Your task to perform on an android device: star an email in the gmail app Image 0: 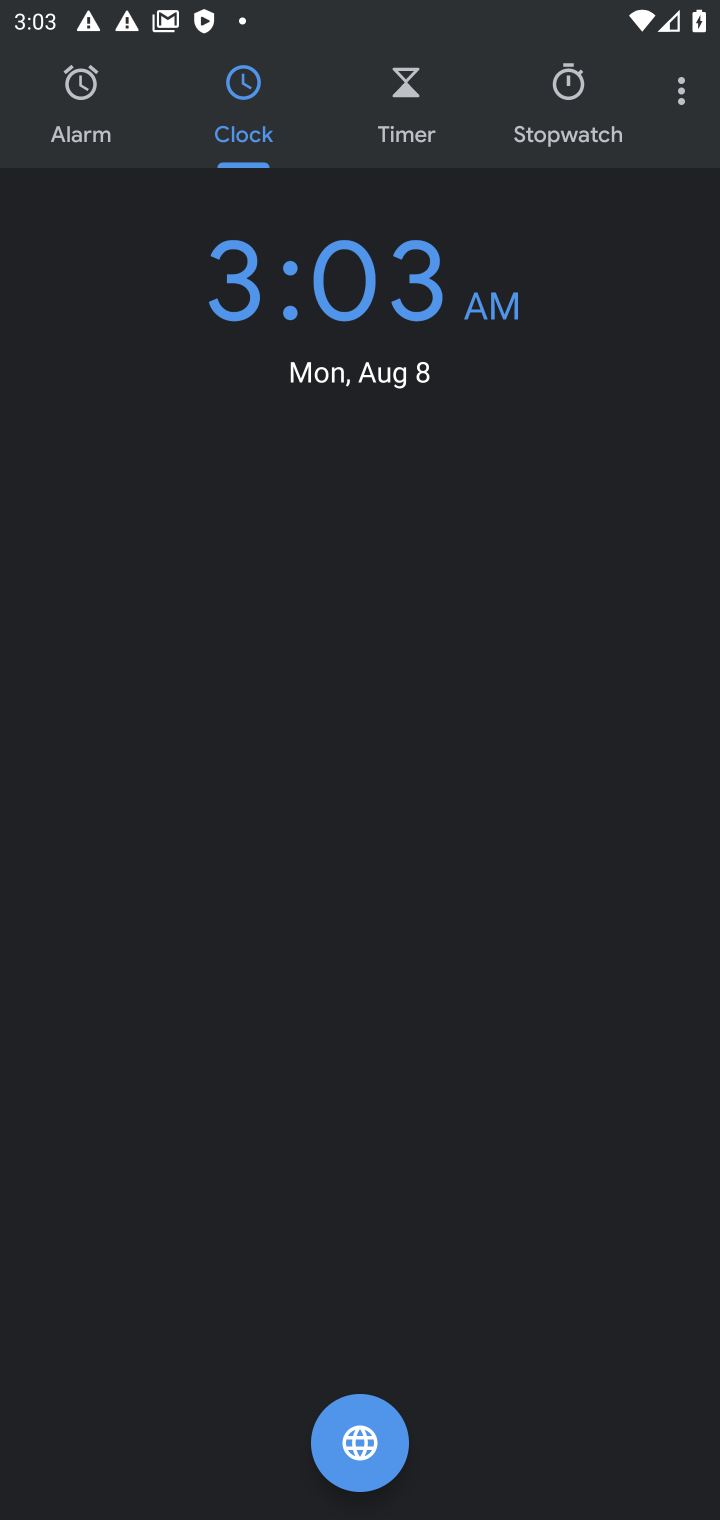
Step 0: press back button
Your task to perform on an android device: star an email in the gmail app Image 1: 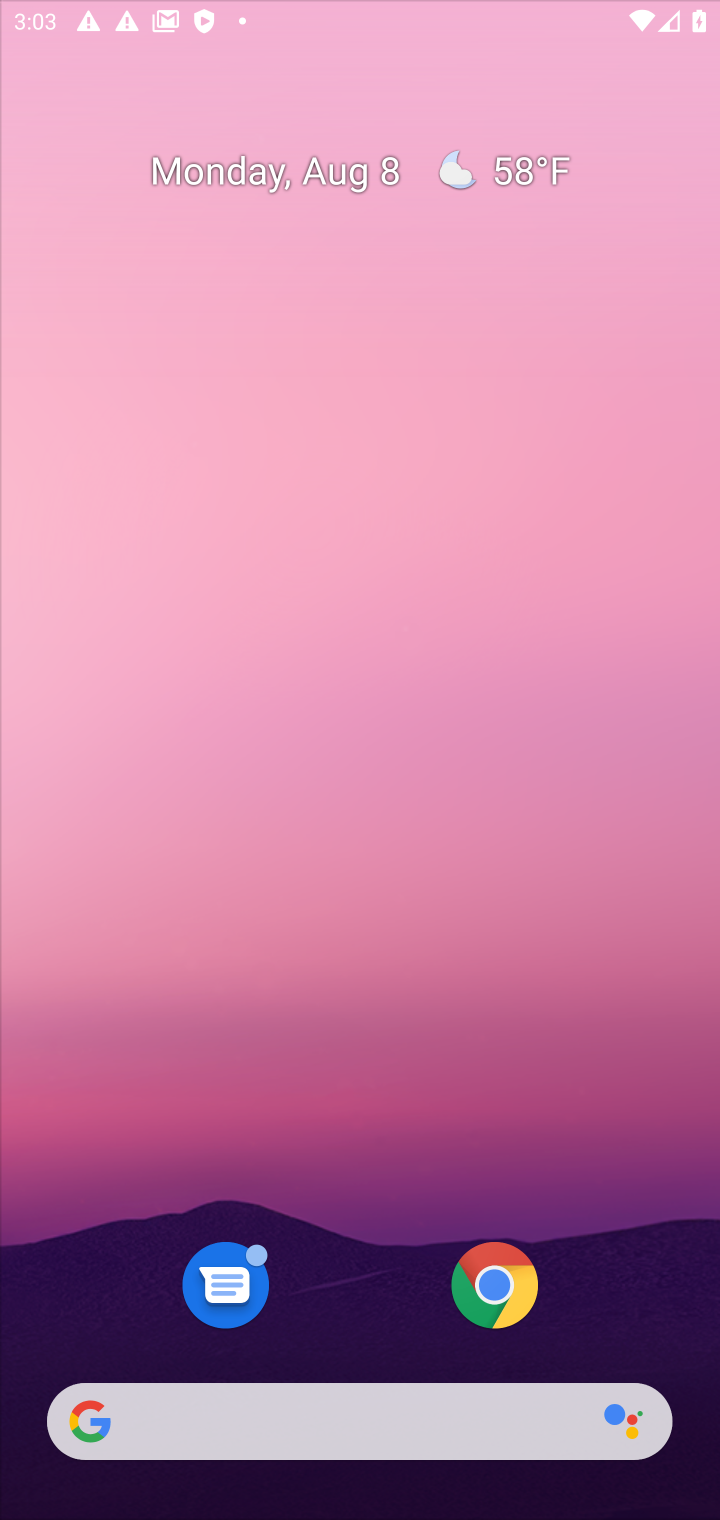
Step 1: drag from (310, 1319) to (579, 200)
Your task to perform on an android device: star an email in the gmail app Image 2: 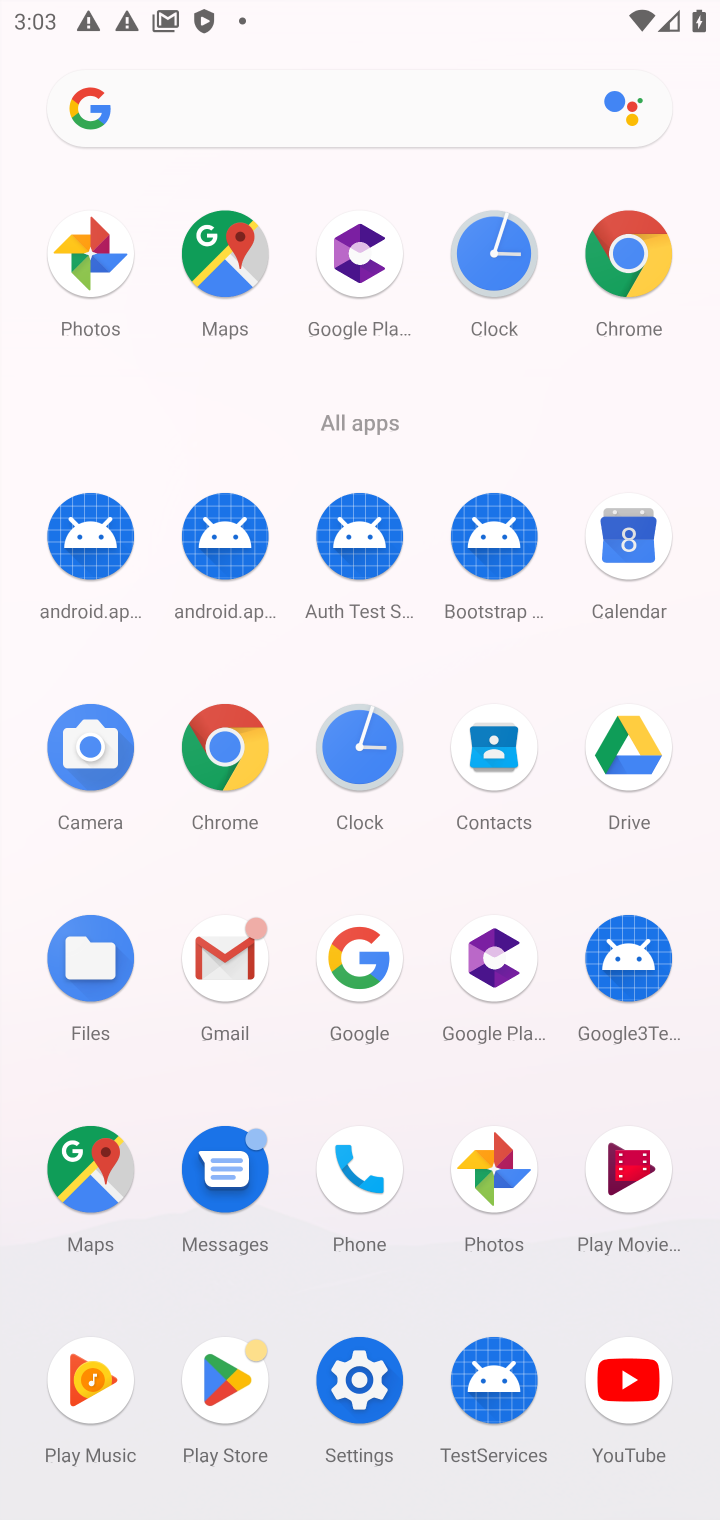
Step 2: click (235, 964)
Your task to perform on an android device: star an email in the gmail app Image 3: 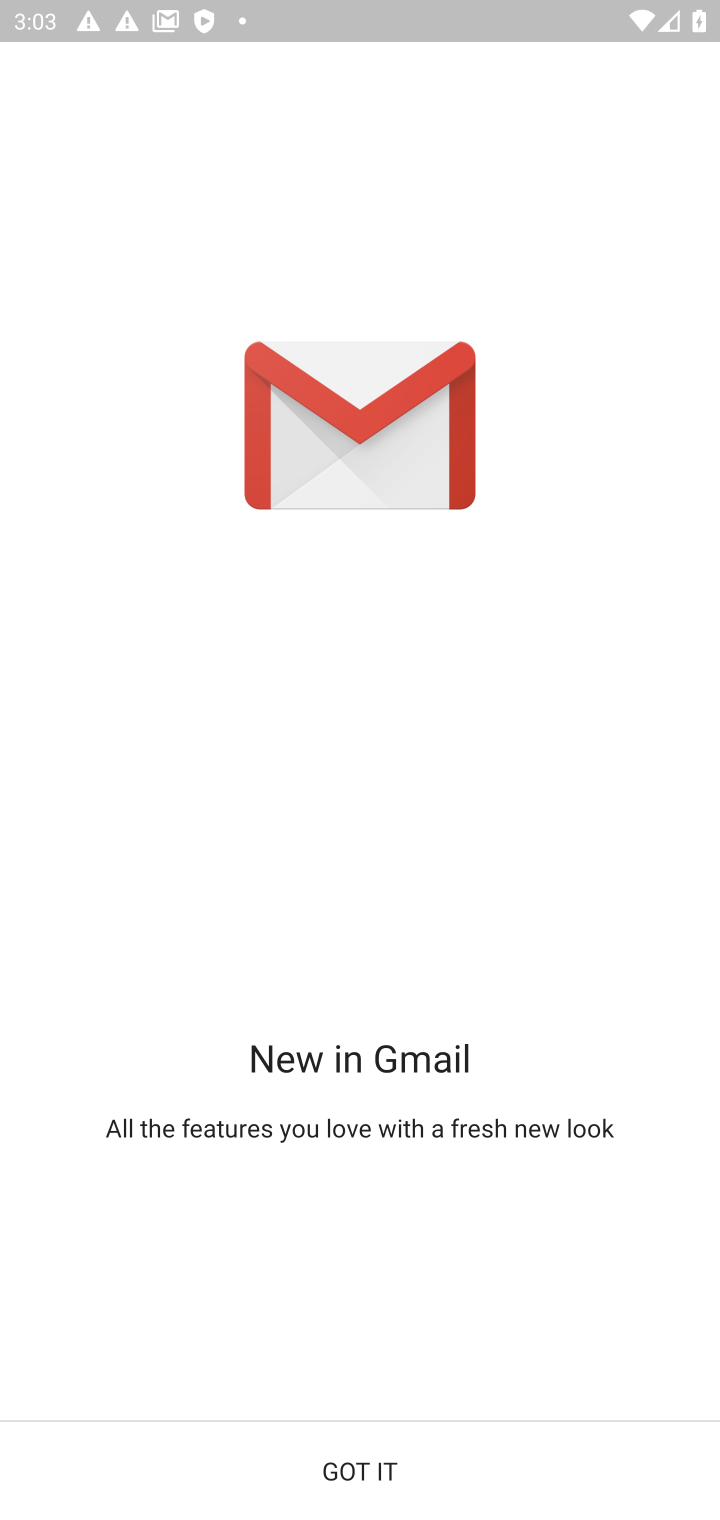
Step 3: click (387, 1468)
Your task to perform on an android device: star an email in the gmail app Image 4: 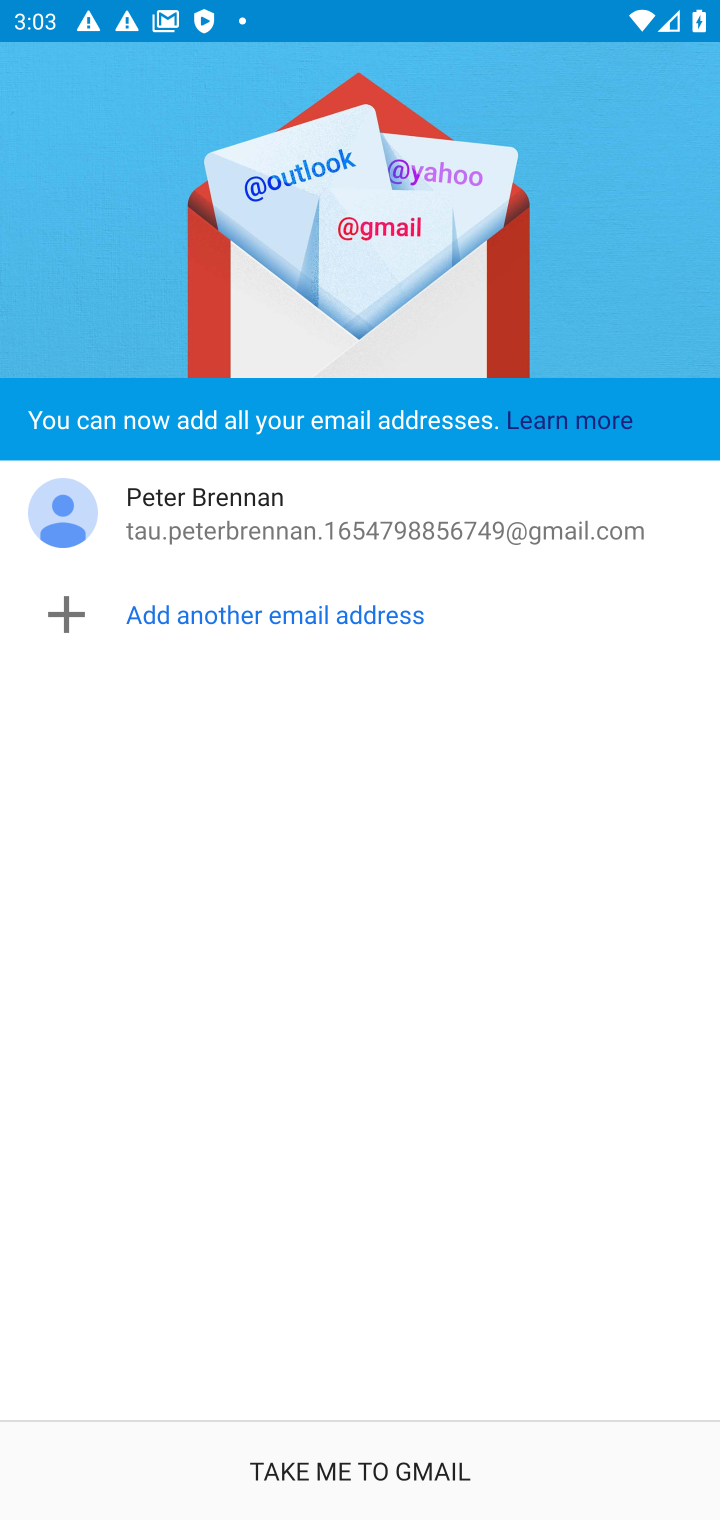
Step 4: click (337, 1477)
Your task to perform on an android device: star an email in the gmail app Image 5: 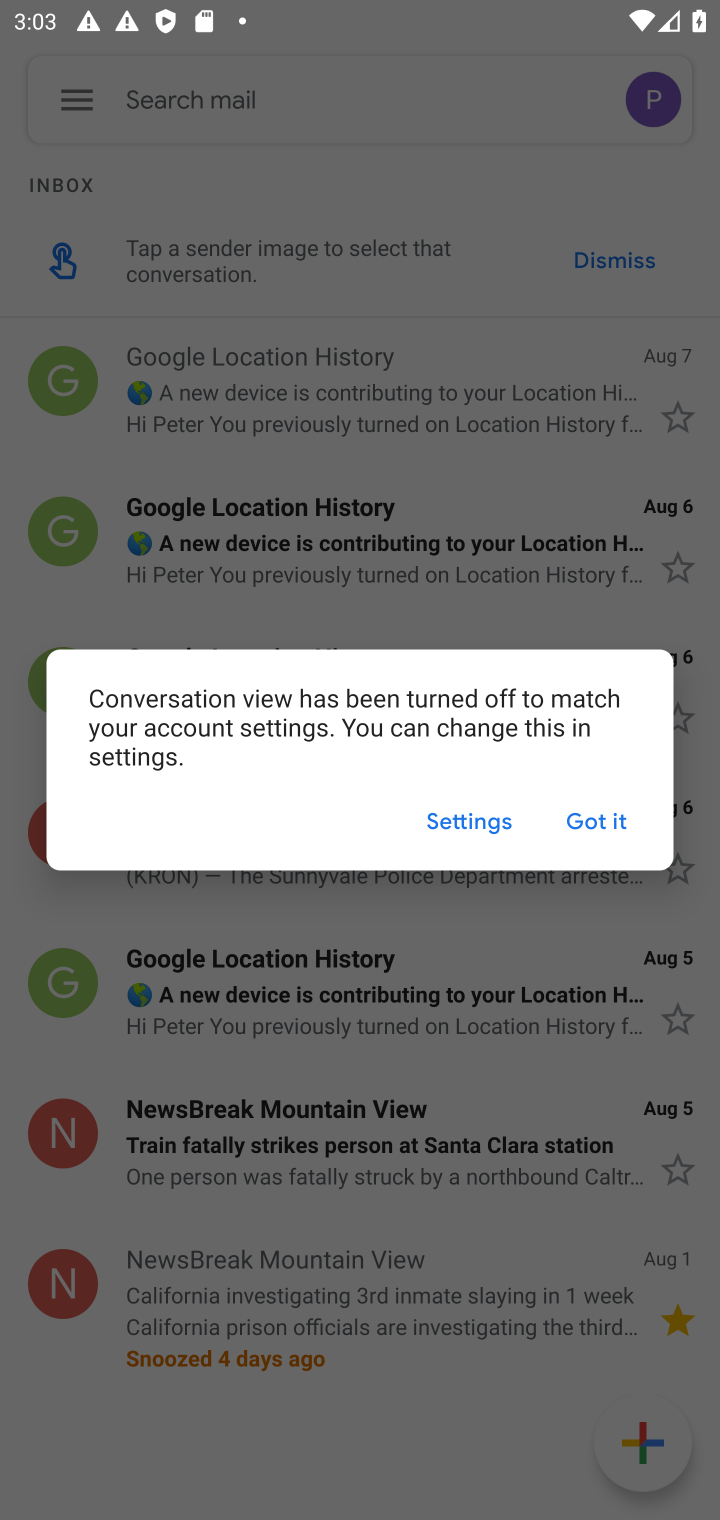
Step 5: click (598, 811)
Your task to perform on an android device: star an email in the gmail app Image 6: 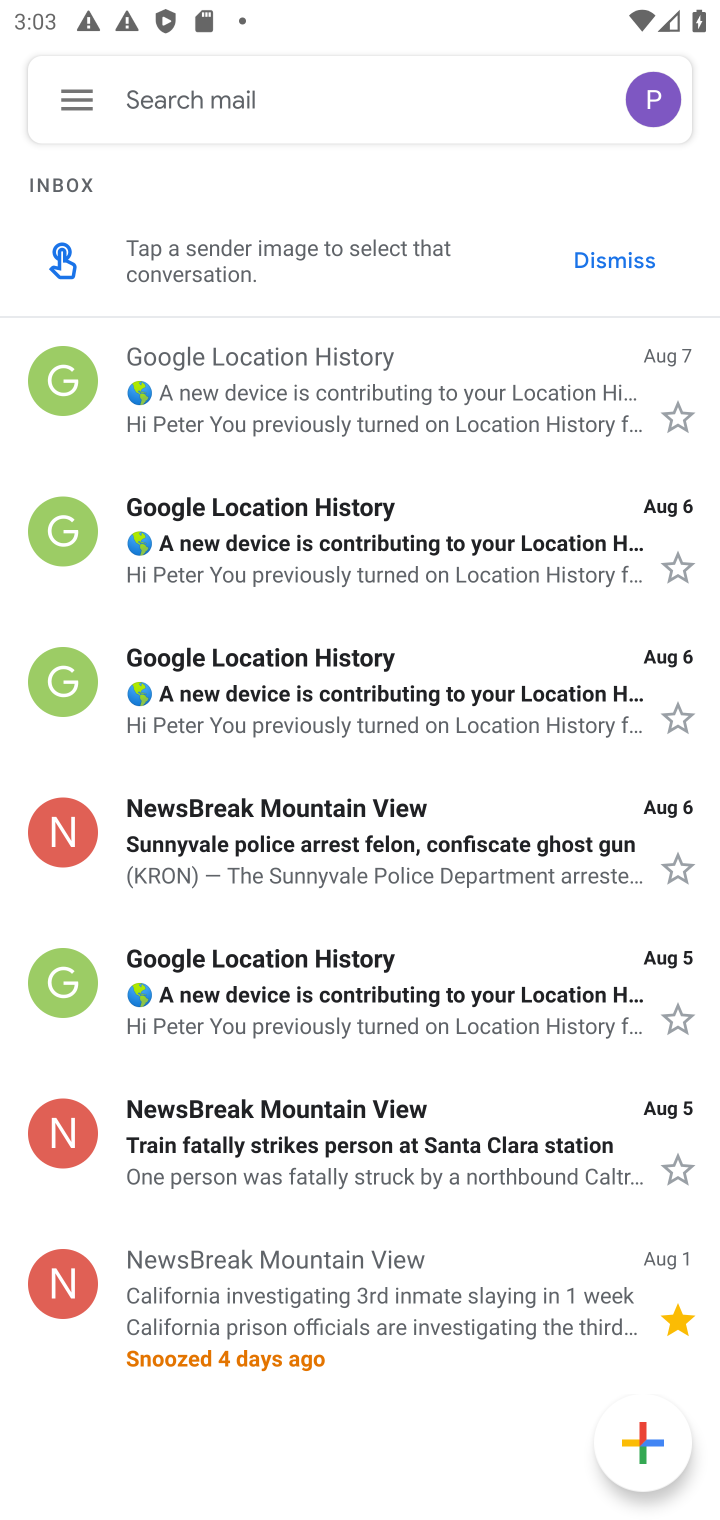
Step 6: click (682, 416)
Your task to perform on an android device: star an email in the gmail app Image 7: 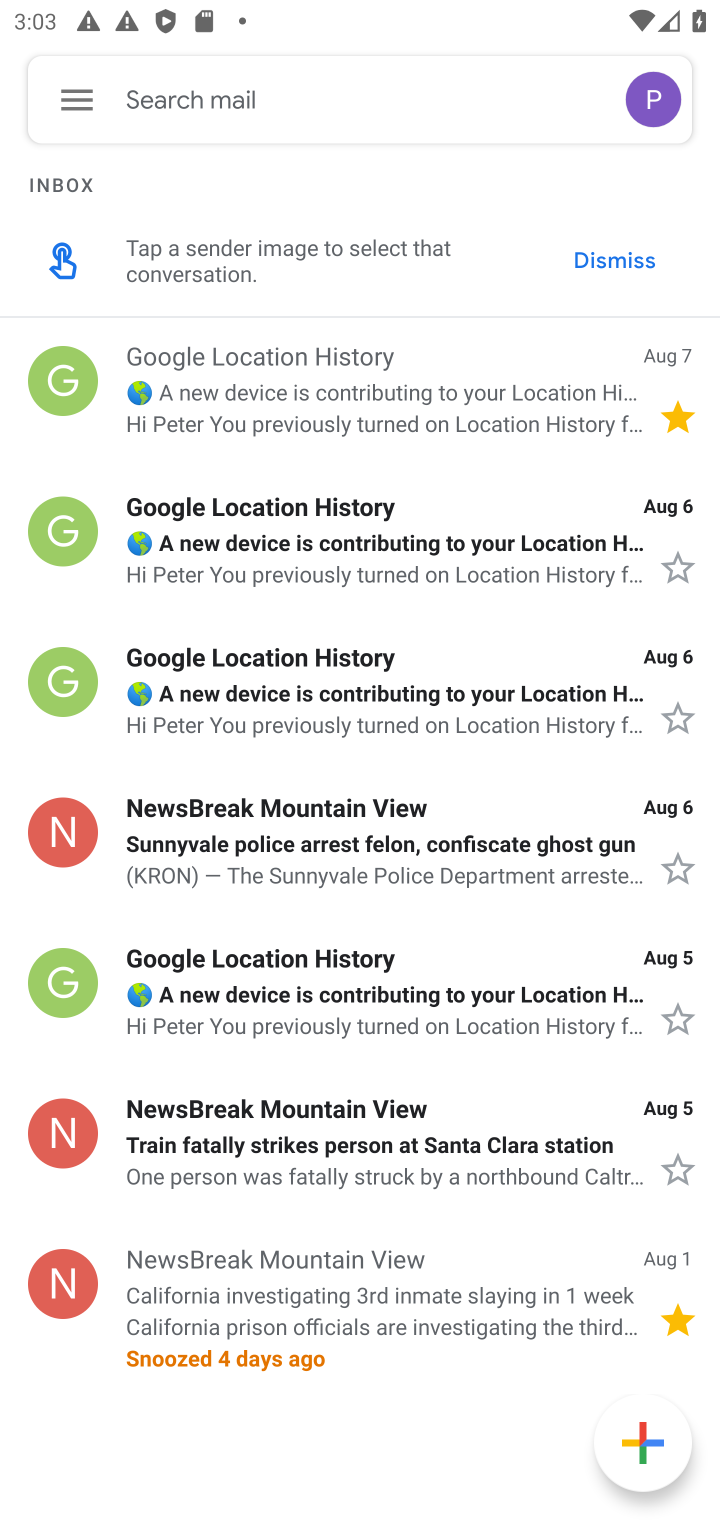
Step 7: task complete